Your task to perform on an android device: Go to notification settings Image 0: 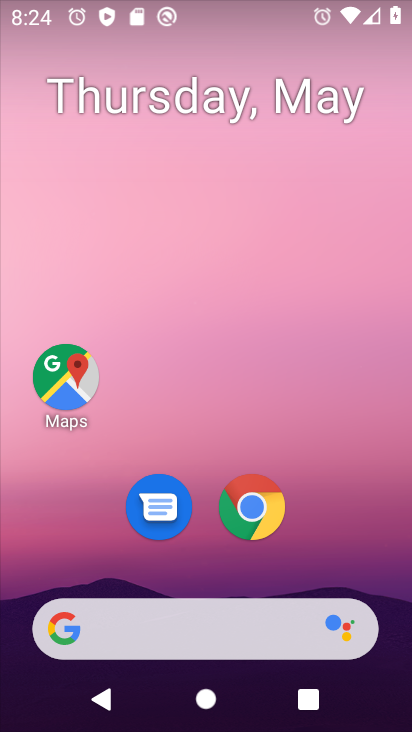
Step 0: drag from (200, 533) to (276, 70)
Your task to perform on an android device: Go to notification settings Image 1: 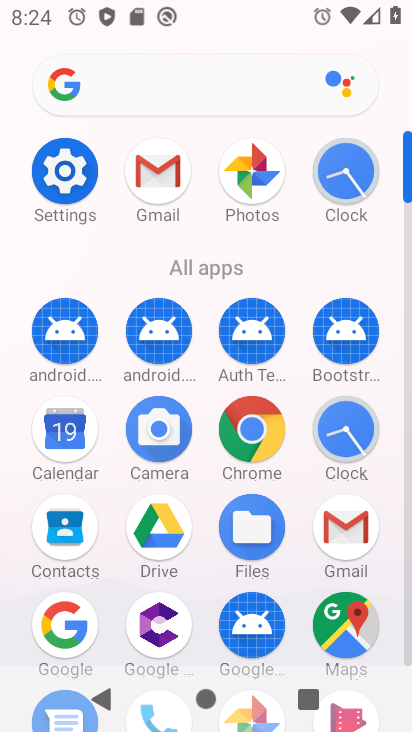
Step 1: click (77, 176)
Your task to perform on an android device: Go to notification settings Image 2: 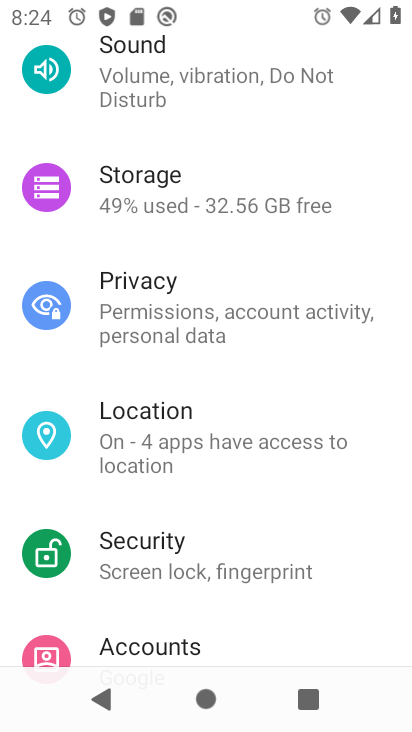
Step 2: drag from (198, 133) to (209, 599)
Your task to perform on an android device: Go to notification settings Image 3: 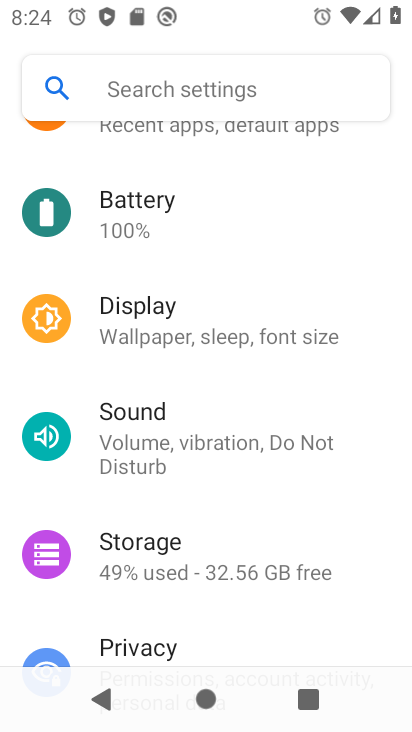
Step 3: drag from (242, 216) to (244, 722)
Your task to perform on an android device: Go to notification settings Image 4: 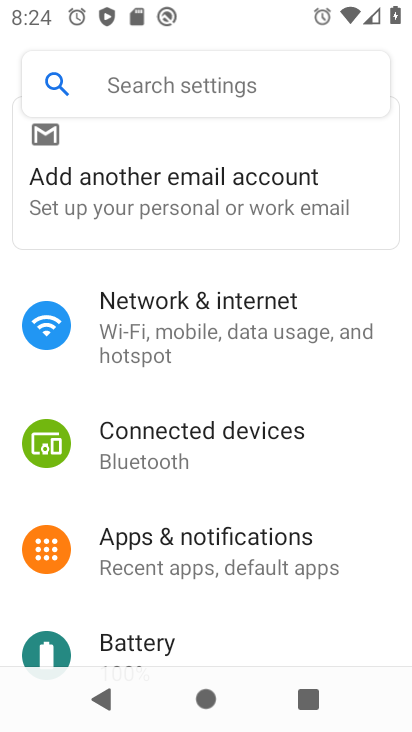
Step 4: click (218, 552)
Your task to perform on an android device: Go to notification settings Image 5: 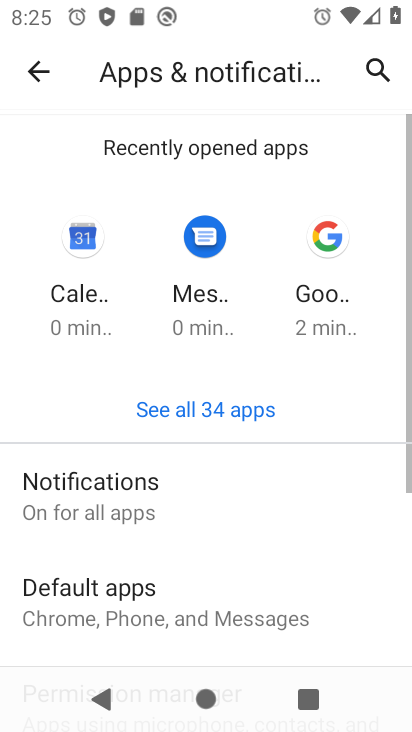
Step 5: click (152, 506)
Your task to perform on an android device: Go to notification settings Image 6: 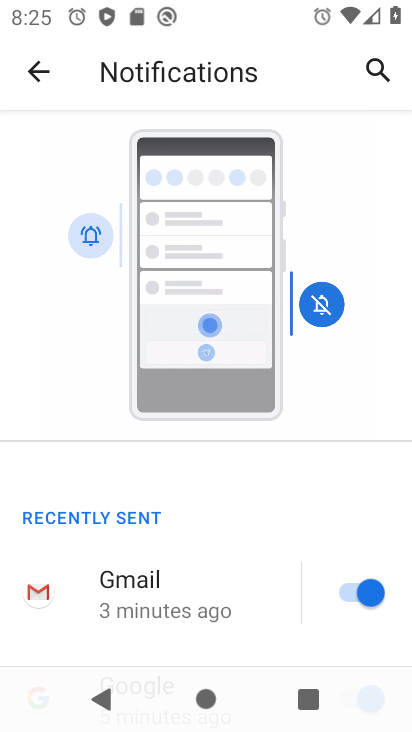
Step 6: task complete